Your task to perform on an android device: change keyboard looks Image 0: 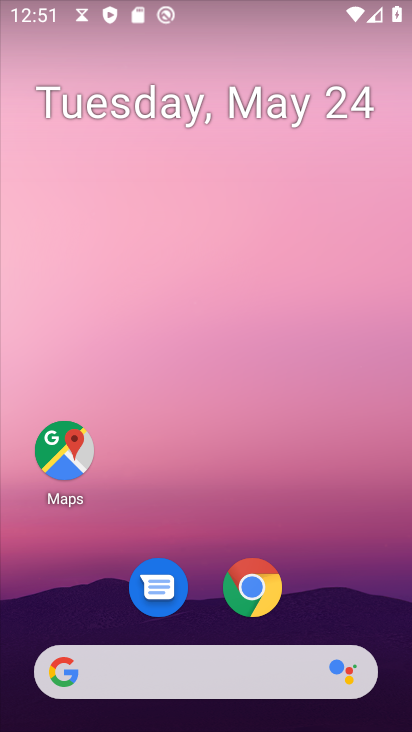
Step 0: drag from (165, 663) to (206, 189)
Your task to perform on an android device: change keyboard looks Image 1: 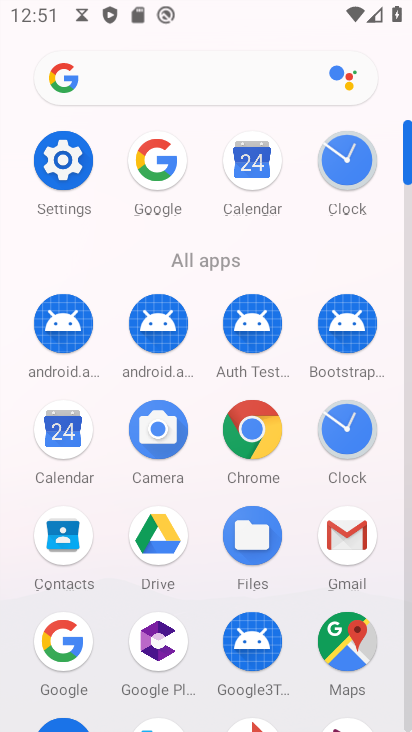
Step 1: click (55, 168)
Your task to perform on an android device: change keyboard looks Image 2: 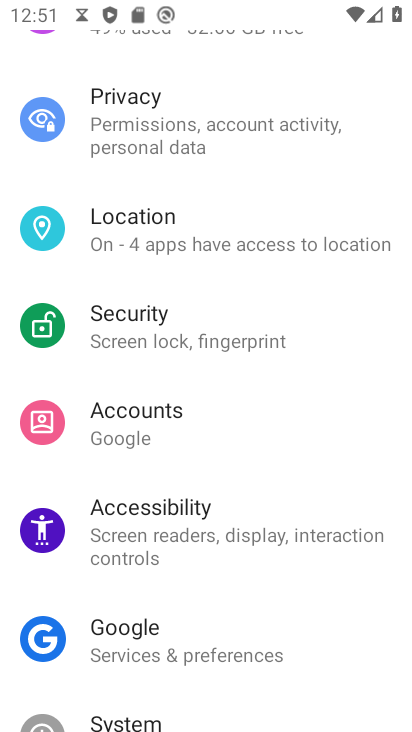
Step 2: drag from (119, 694) to (153, 301)
Your task to perform on an android device: change keyboard looks Image 3: 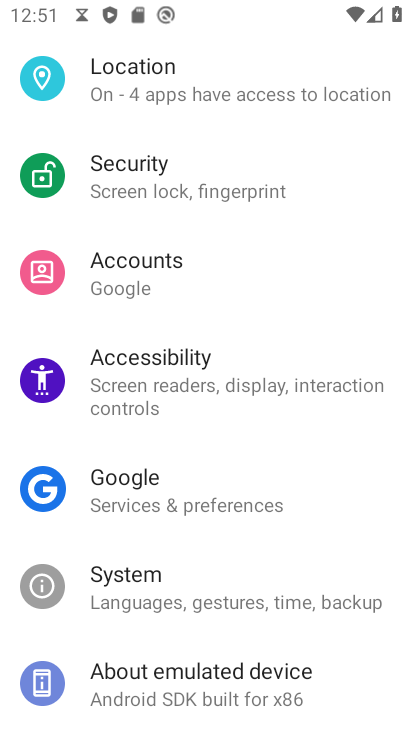
Step 3: click (156, 612)
Your task to perform on an android device: change keyboard looks Image 4: 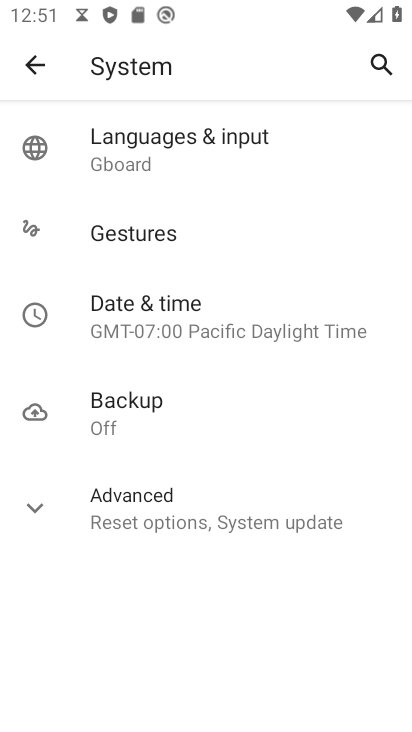
Step 4: click (184, 136)
Your task to perform on an android device: change keyboard looks Image 5: 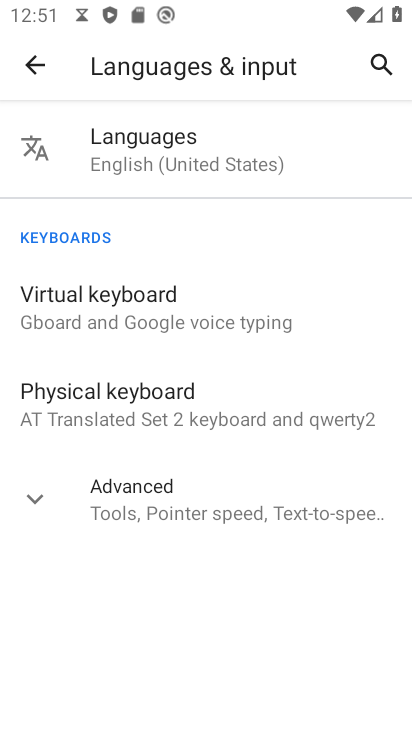
Step 5: click (146, 320)
Your task to perform on an android device: change keyboard looks Image 6: 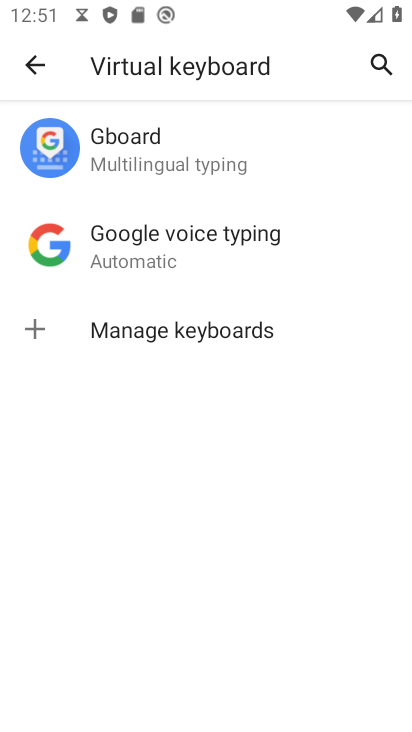
Step 6: click (145, 165)
Your task to perform on an android device: change keyboard looks Image 7: 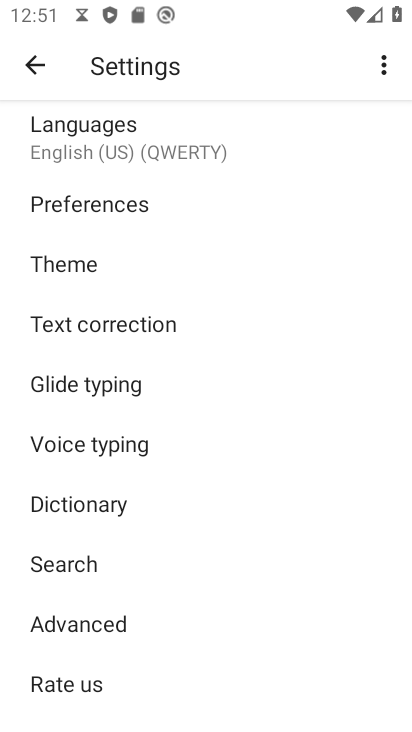
Step 7: click (108, 265)
Your task to perform on an android device: change keyboard looks Image 8: 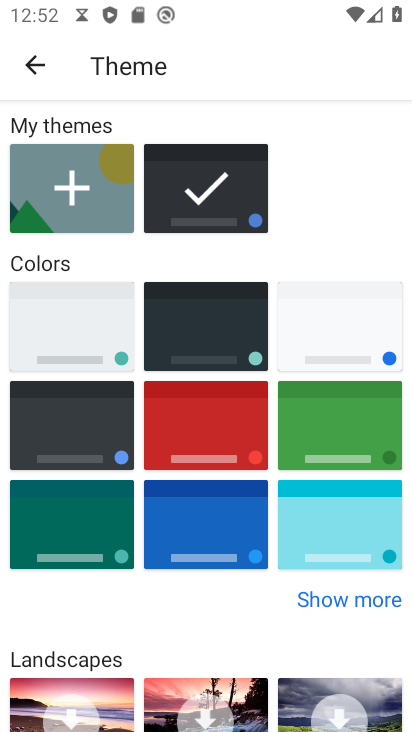
Step 8: click (346, 546)
Your task to perform on an android device: change keyboard looks Image 9: 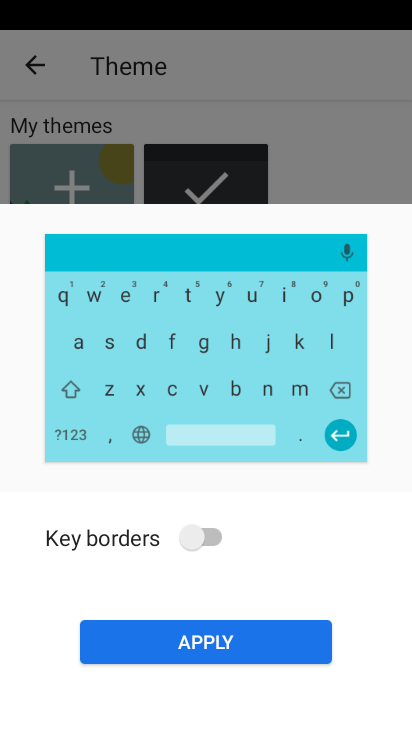
Step 9: click (217, 642)
Your task to perform on an android device: change keyboard looks Image 10: 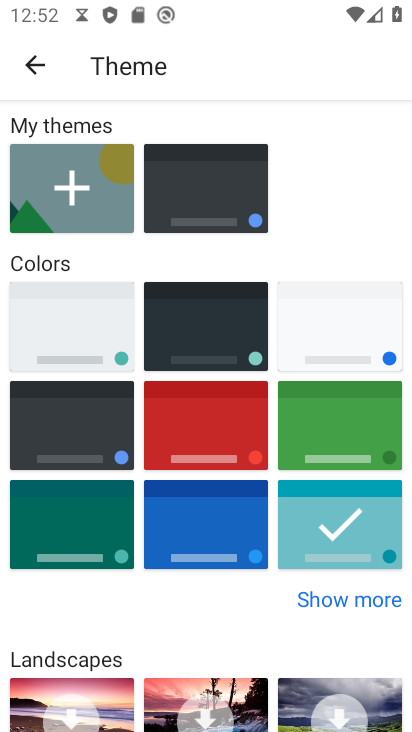
Step 10: task complete